Your task to perform on an android device: Open Chrome and go to settings Image 0: 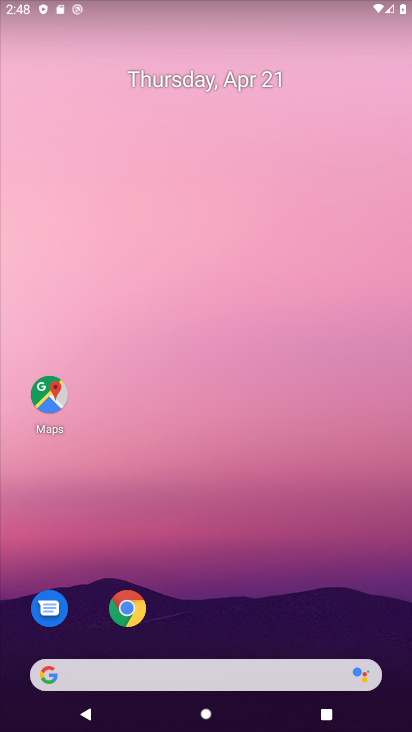
Step 0: click (148, 617)
Your task to perform on an android device: Open Chrome and go to settings Image 1: 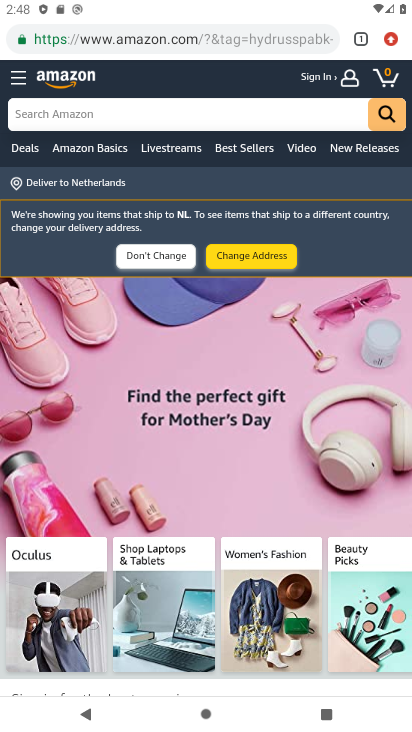
Step 1: click (396, 38)
Your task to perform on an android device: Open Chrome and go to settings Image 2: 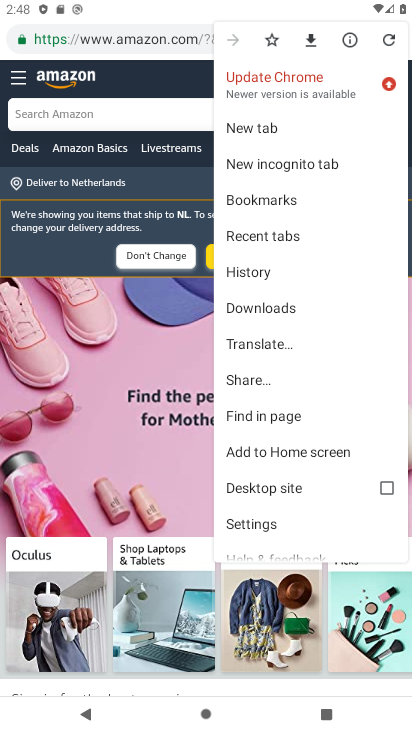
Step 2: click (277, 518)
Your task to perform on an android device: Open Chrome and go to settings Image 3: 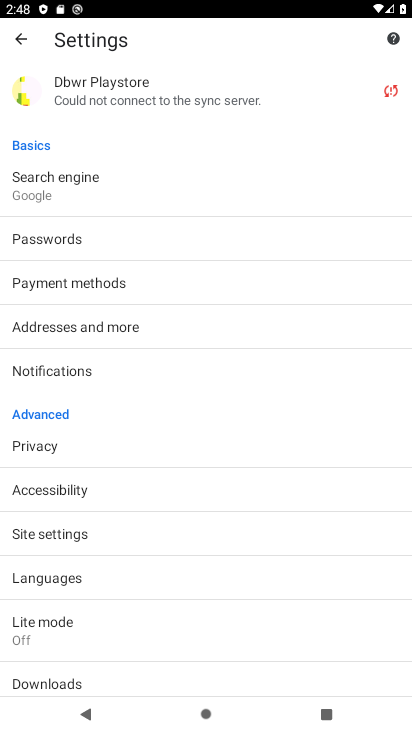
Step 3: task complete